Your task to perform on an android device: Open wifi settings Image 0: 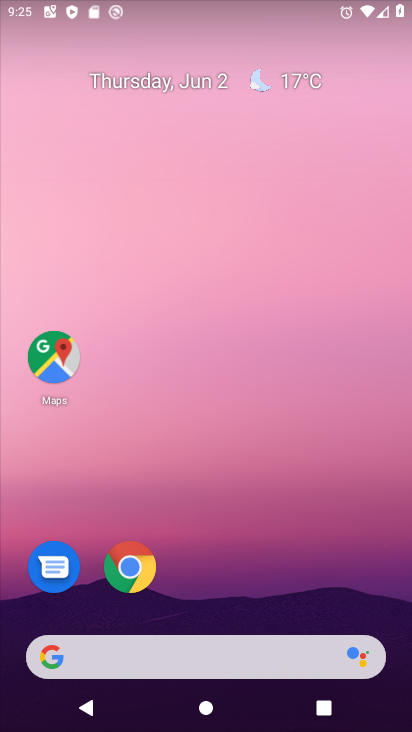
Step 0: drag from (246, 578) to (280, 245)
Your task to perform on an android device: Open wifi settings Image 1: 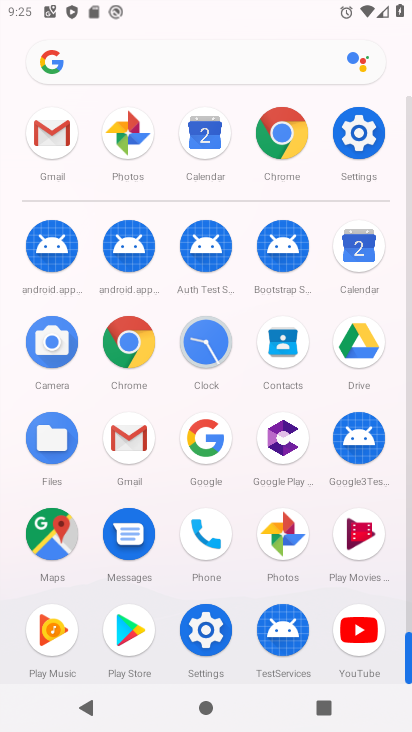
Step 1: click (369, 149)
Your task to perform on an android device: Open wifi settings Image 2: 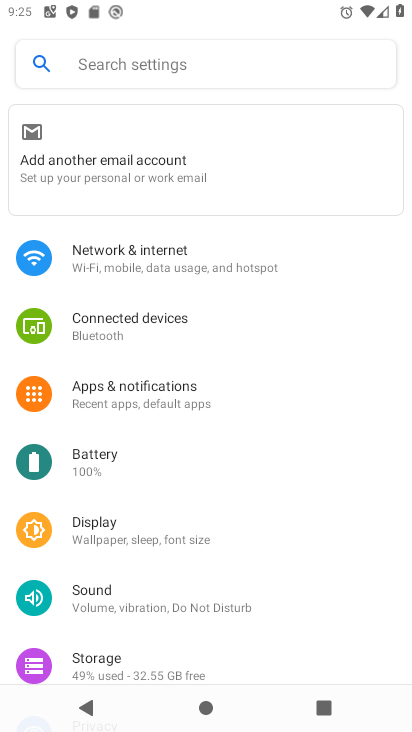
Step 2: click (160, 273)
Your task to perform on an android device: Open wifi settings Image 3: 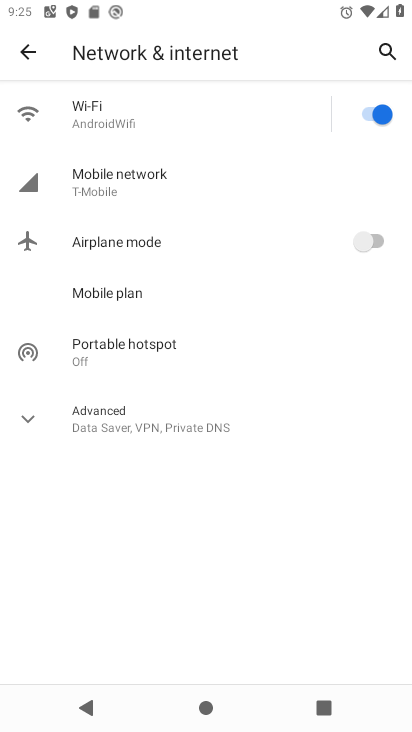
Step 3: click (141, 114)
Your task to perform on an android device: Open wifi settings Image 4: 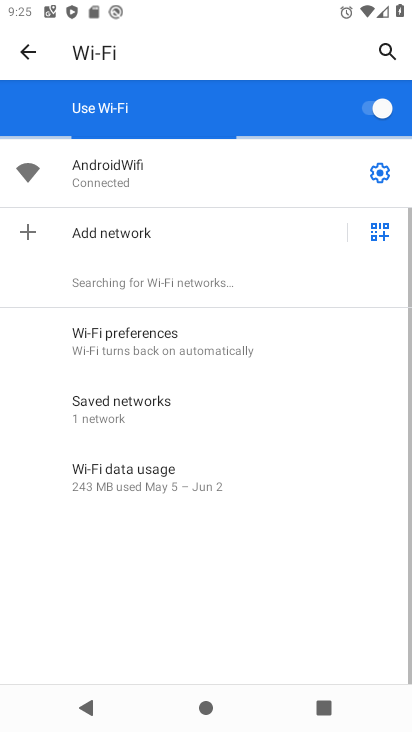
Step 4: press home button
Your task to perform on an android device: Open wifi settings Image 5: 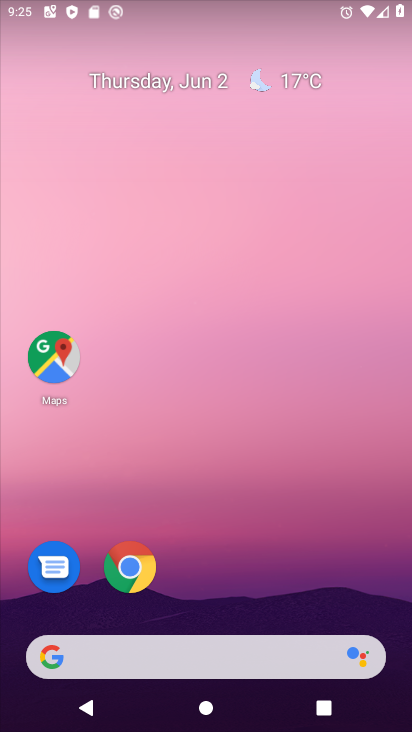
Step 5: drag from (241, 589) to (249, 20)
Your task to perform on an android device: Open wifi settings Image 6: 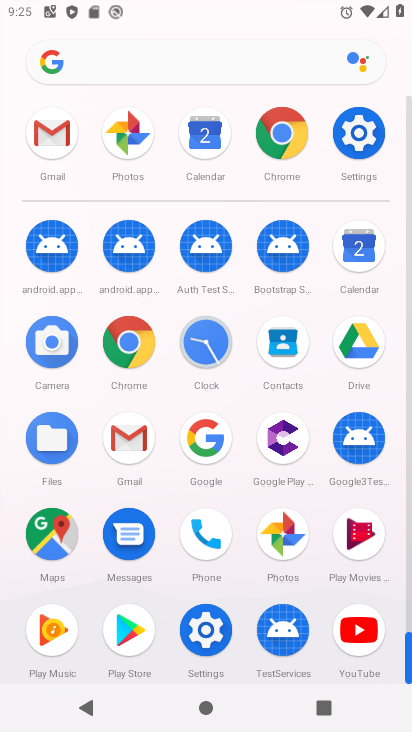
Step 6: click (359, 151)
Your task to perform on an android device: Open wifi settings Image 7: 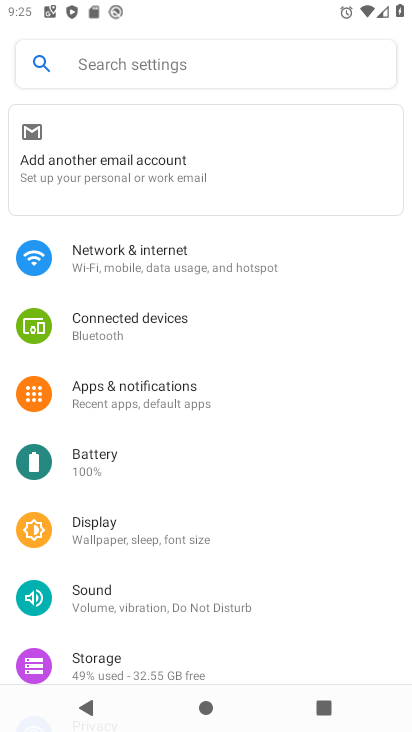
Step 7: click (233, 268)
Your task to perform on an android device: Open wifi settings Image 8: 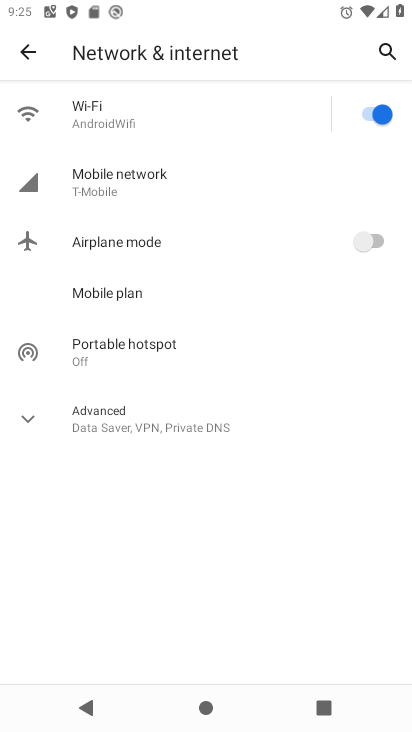
Step 8: click (164, 116)
Your task to perform on an android device: Open wifi settings Image 9: 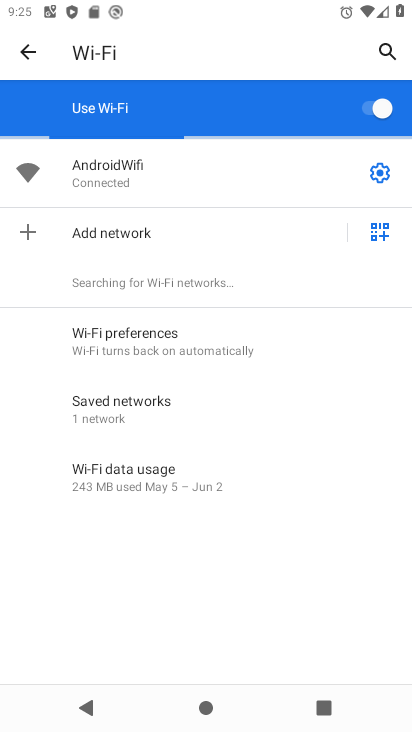
Step 9: task complete